Your task to perform on an android device: open sync settings in chrome Image 0: 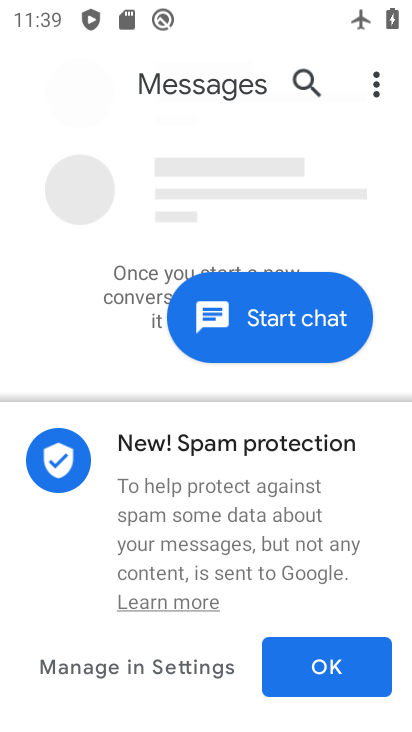
Step 0: press home button
Your task to perform on an android device: open sync settings in chrome Image 1: 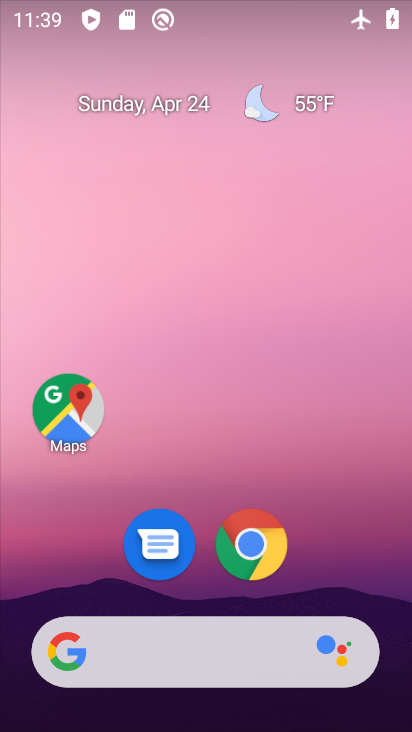
Step 1: click (248, 543)
Your task to perform on an android device: open sync settings in chrome Image 2: 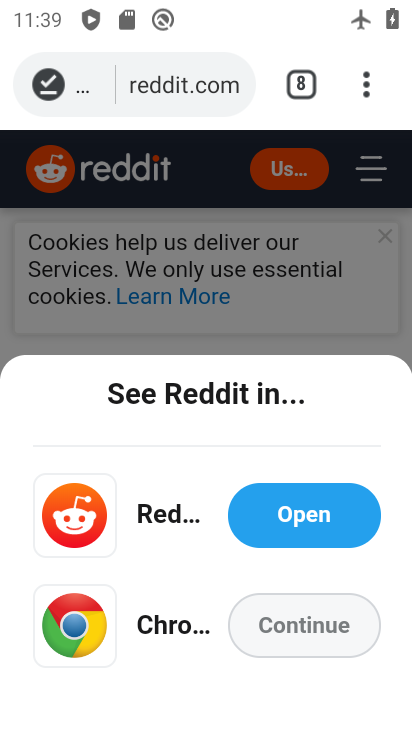
Step 2: drag from (365, 93) to (117, 600)
Your task to perform on an android device: open sync settings in chrome Image 3: 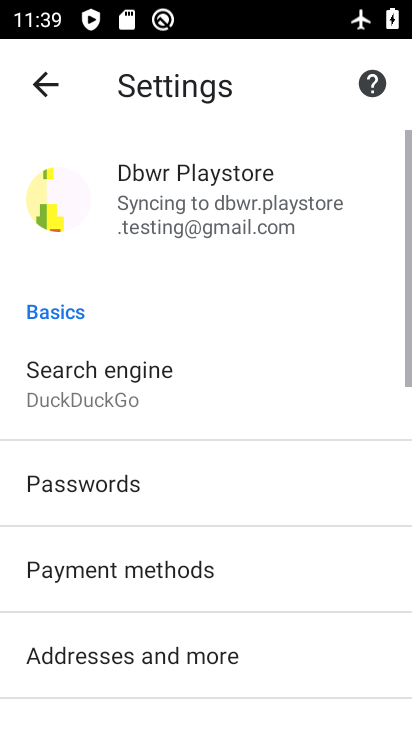
Step 3: drag from (201, 610) to (133, 169)
Your task to perform on an android device: open sync settings in chrome Image 4: 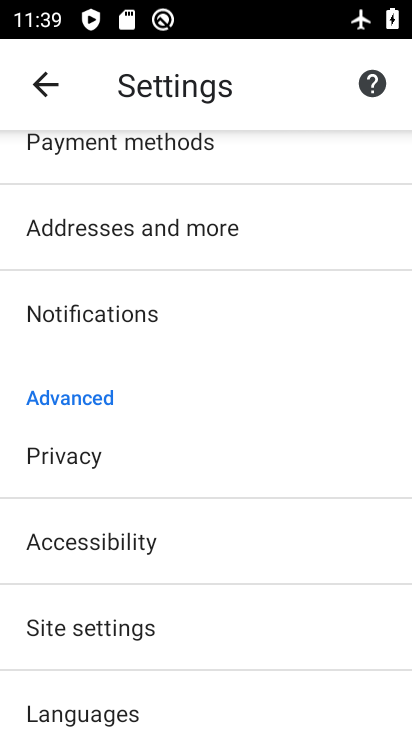
Step 4: click (97, 628)
Your task to perform on an android device: open sync settings in chrome Image 5: 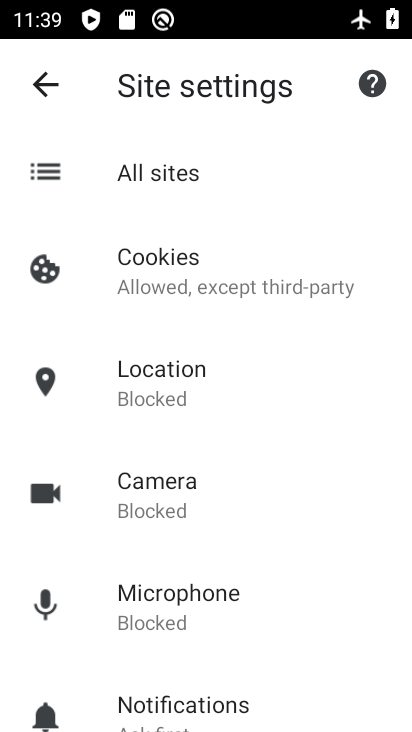
Step 5: drag from (213, 642) to (193, 246)
Your task to perform on an android device: open sync settings in chrome Image 6: 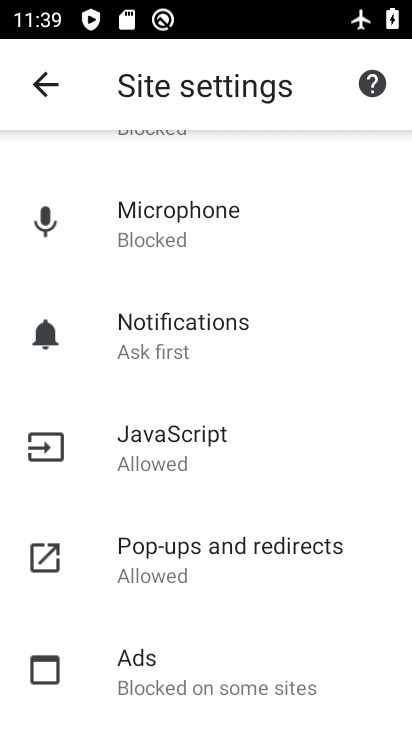
Step 6: drag from (197, 650) to (187, 256)
Your task to perform on an android device: open sync settings in chrome Image 7: 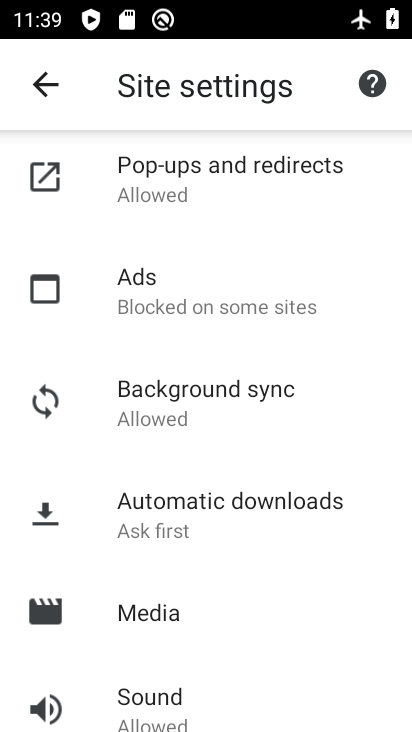
Step 7: click (158, 412)
Your task to perform on an android device: open sync settings in chrome Image 8: 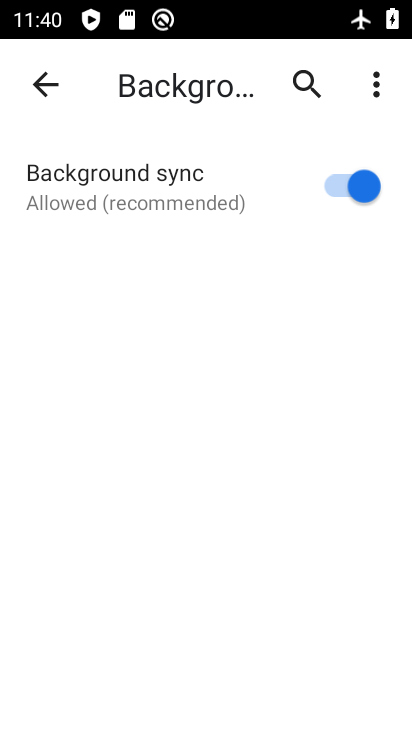
Step 8: task complete